Your task to perform on an android device: Go to Yahoo.com Image 0: 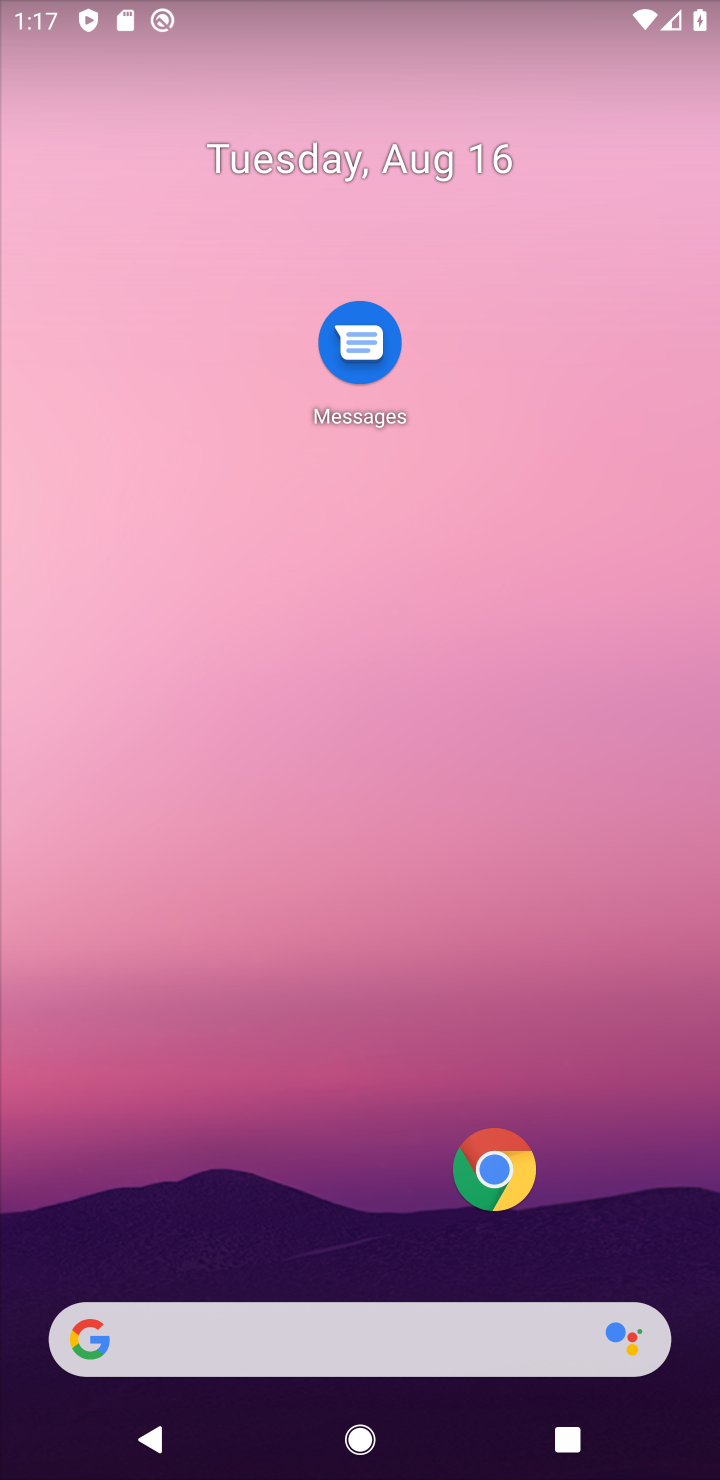
Step 0: click (226, 1344)
Your task to perform on an android device: Go to Yahoo.com Image 1: 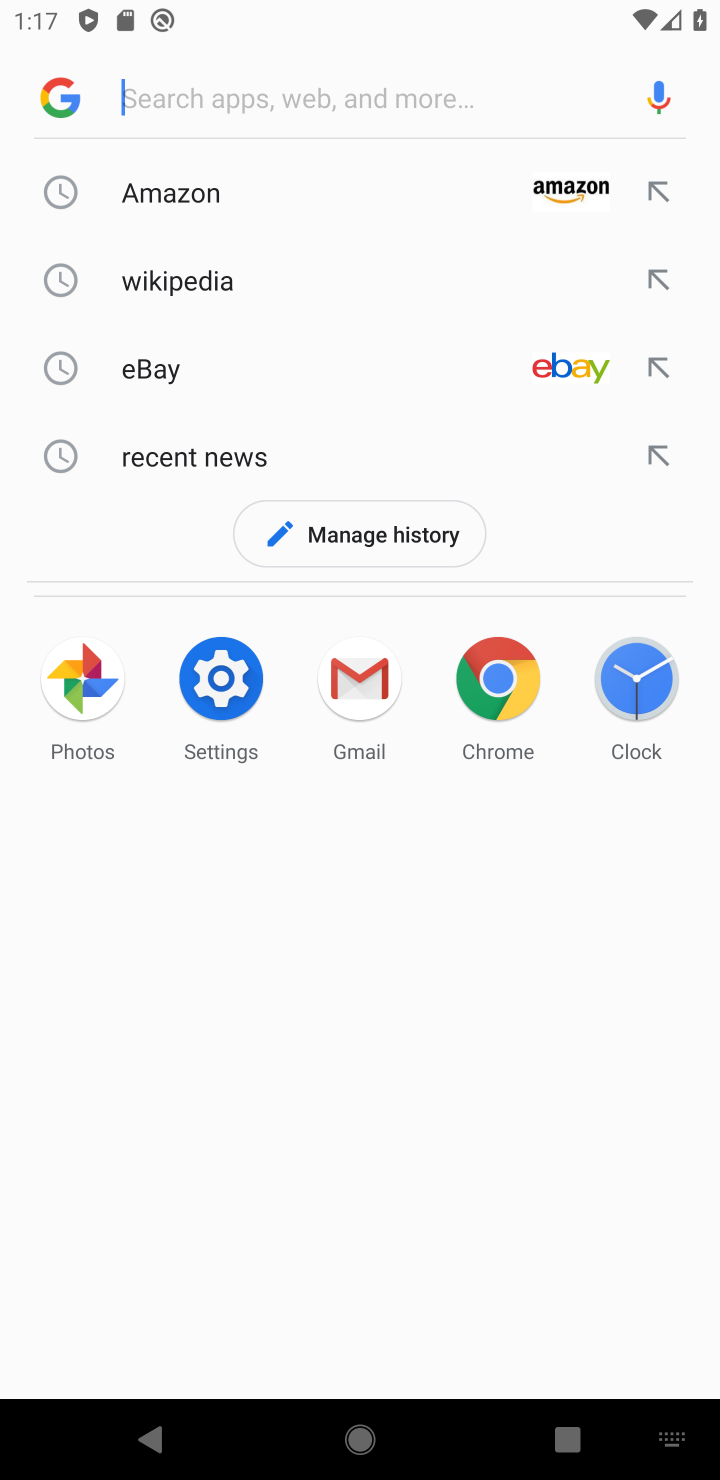
Step 1: type "Yahoo.com"
Your task to perform on an android device: Go to Yahoo.com Image 2: 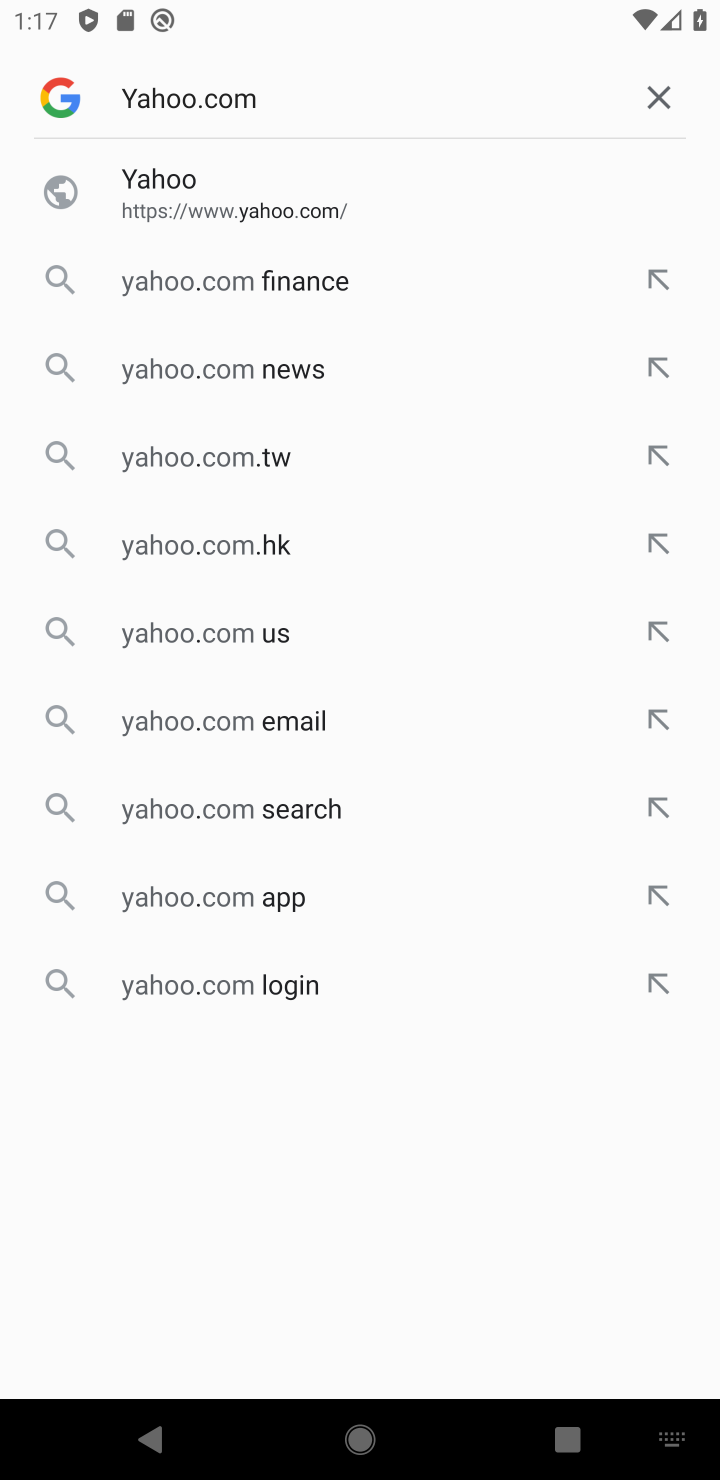
Step 2: type ""
Your task to perform on an android device: Go to Yahoo.com Image 3: 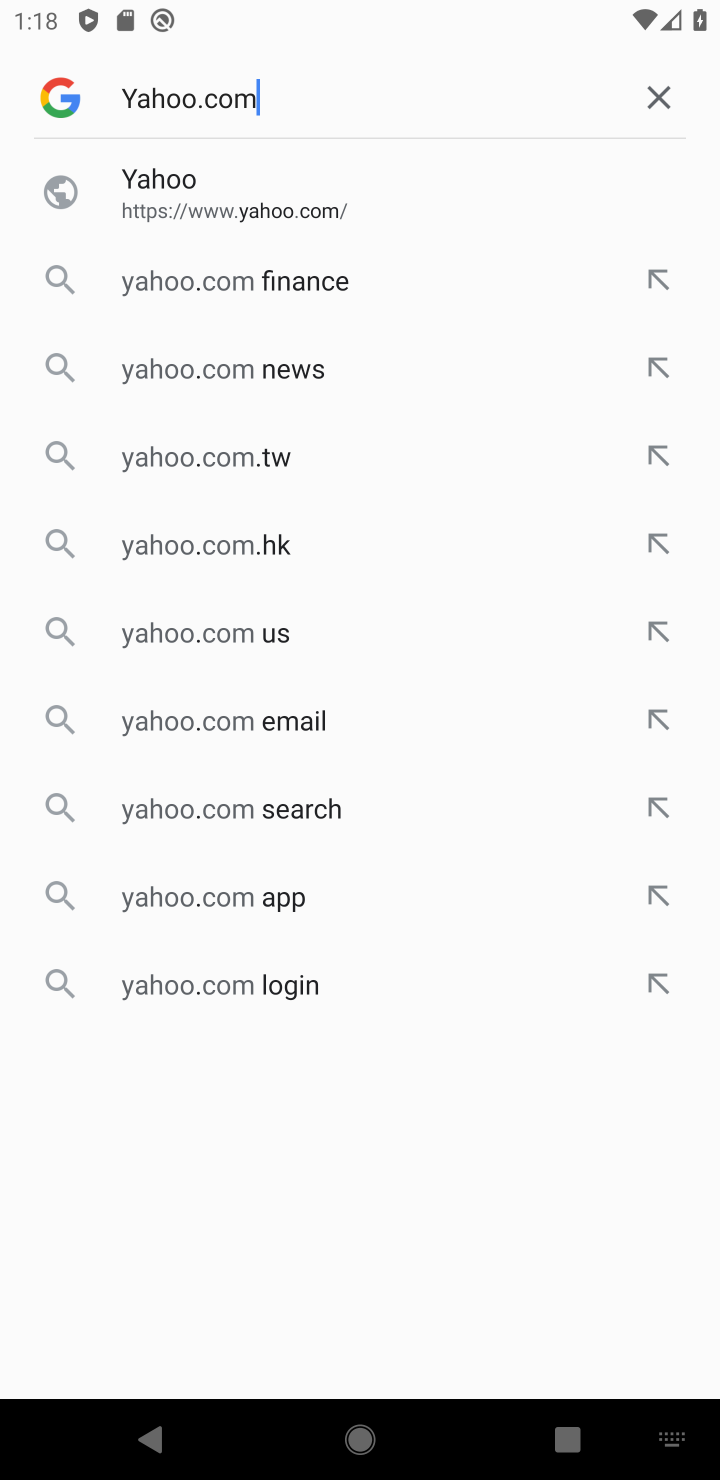
Step 3: task complete